Your task to perform on an android device: Show me productivity apps on the Play Store Image 0: 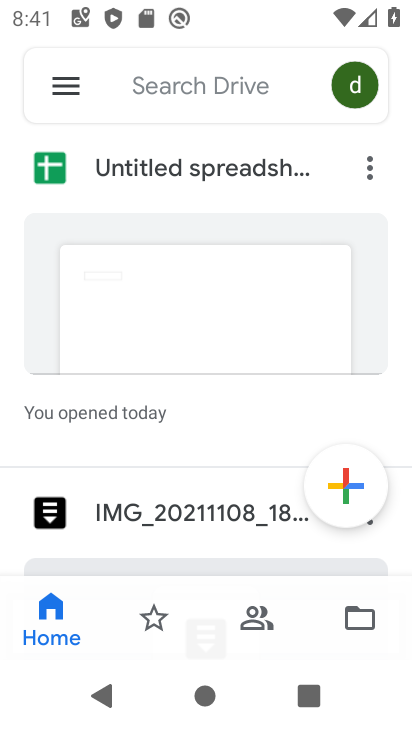
Step 0: press home button
Your task to perform on an android device: Show me productivity apps on the Play Store Image 1: 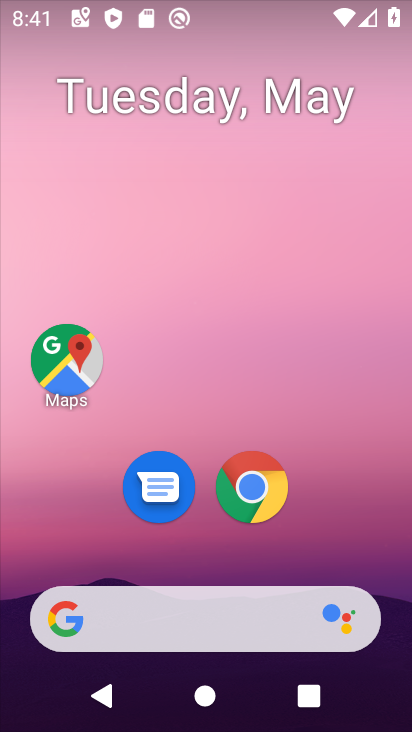
Step 1: drag from (384, 539) to (392, 149)
Your task to perform on an android device: Show me productivity apps on the Play Store Image 2: 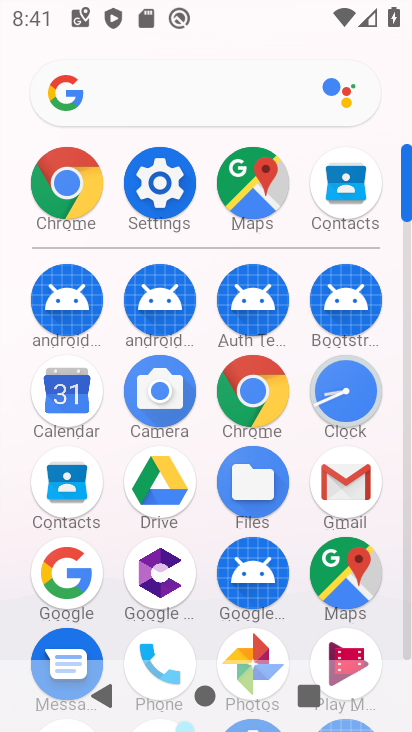
Step 2: drag from (387, 543) to (386, 280)
Your task to perform on an android device: Show me productivity apps on the Play Store Image 3: 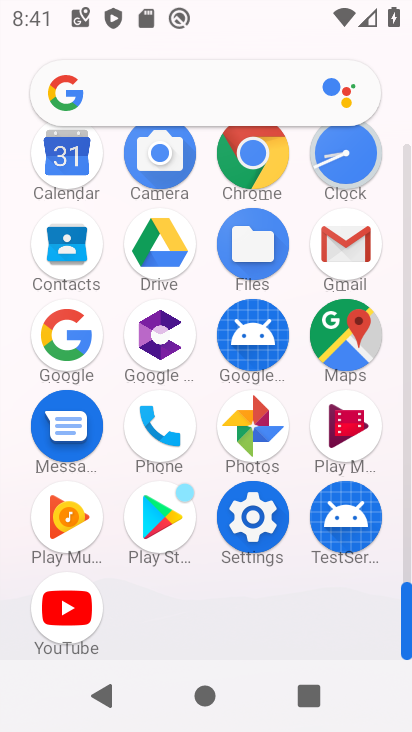
Step 3: click (167, 531)
Your task to perform on an android device: Show me productivity apps on the Play Store Image 4: 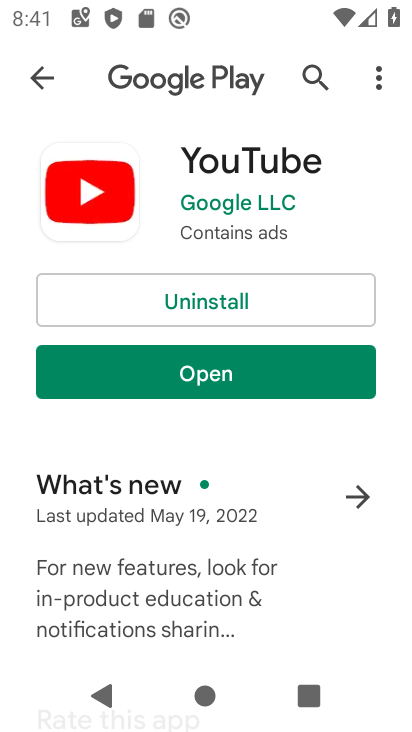
Step 4: click (37, 88)
Your task to perform on an android device: Show me productivity apps on the Play Store Image 5: 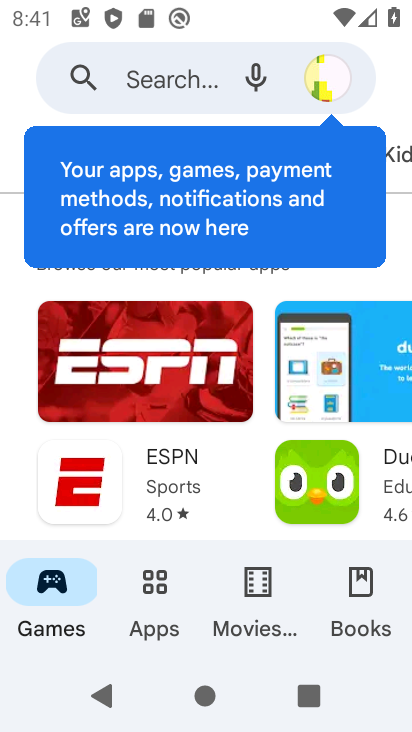
Step 5: click (160, 587)
Your task to perform on an android device: Show me productivity apps on the Play Store Image 6: 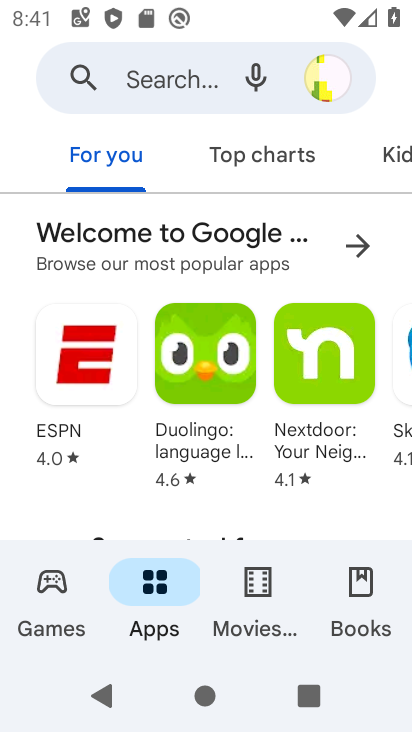
Step 6: task complete